Your task to perform on an android device: turn on translation in the chrome app Image 0: 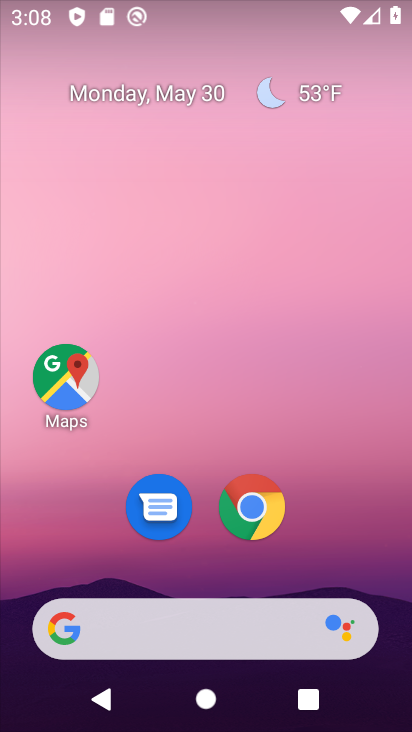
Step 0: click (267, 517)
Your task to perform on an android device: turn on translation in the chrome app Image 1: 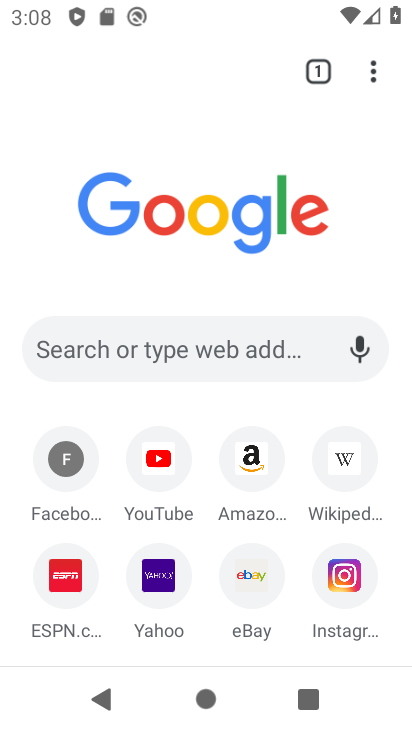
Step 1: drag from (375, 75) to (186, 505)
Your task to perform on an android device: turn on translation in the chrome app Image 2: 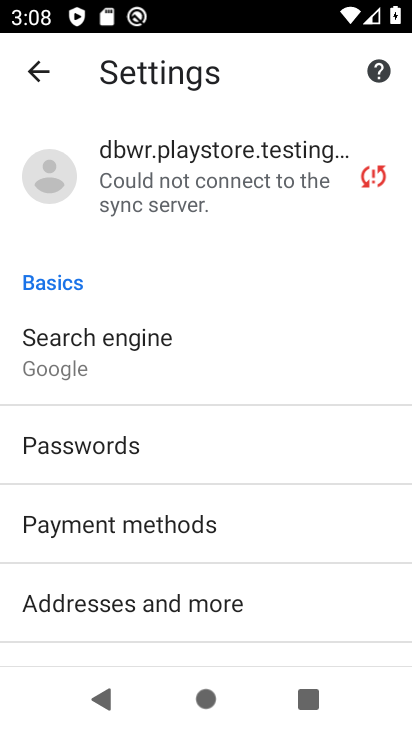
Step 2: drag from (167, 607) to (272, 230)
Your task to perform on an android device: turn on translation in the chrome app Image 3: 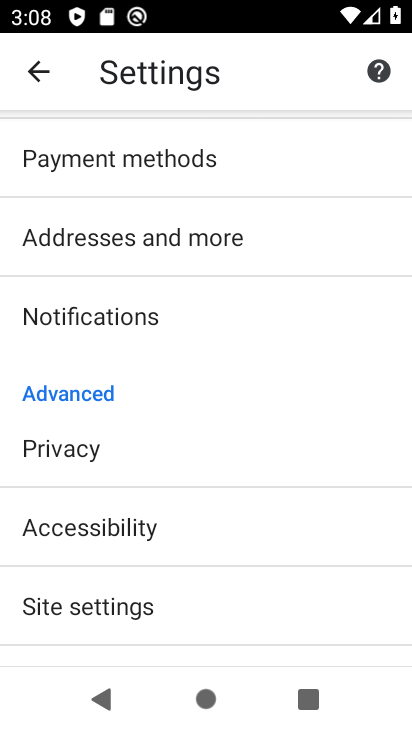
Step 3: drag from (163, 612) to (228, 321)
Your task to perform on an android device: turn on translation in the chrome app Image 4: 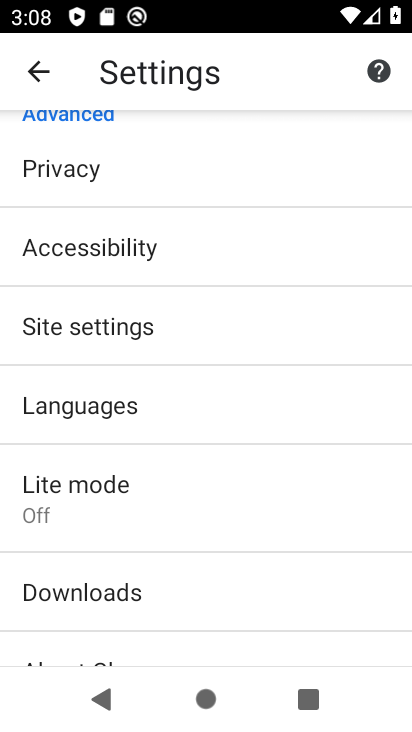
Step 4: click (177, 405)
Your task to perform on an android device: turn on translation in the chrome app Image 5: 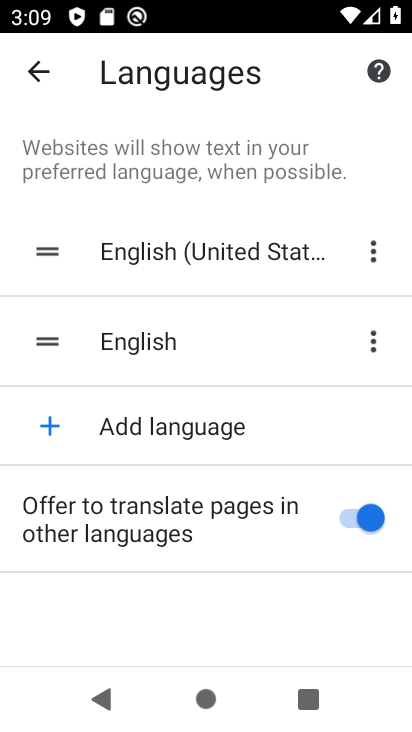
Step 5: task complete